Your task to perform on an android device: Open privacy settings Image 0: 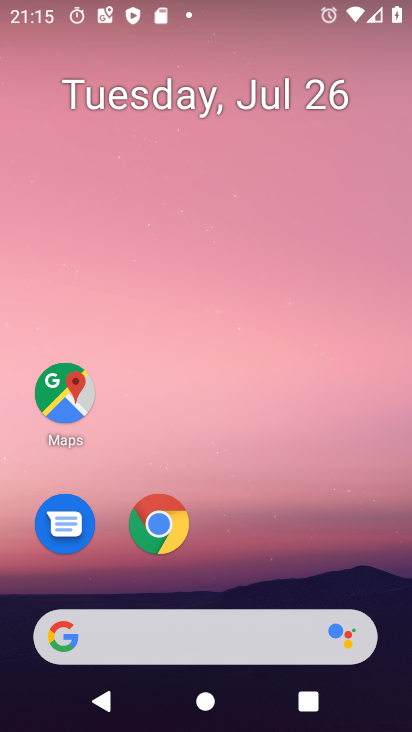
Step 0: drag from (272, 556) to (273, 153)
Your task to perform on an android device: Open privacy settings Image 1: 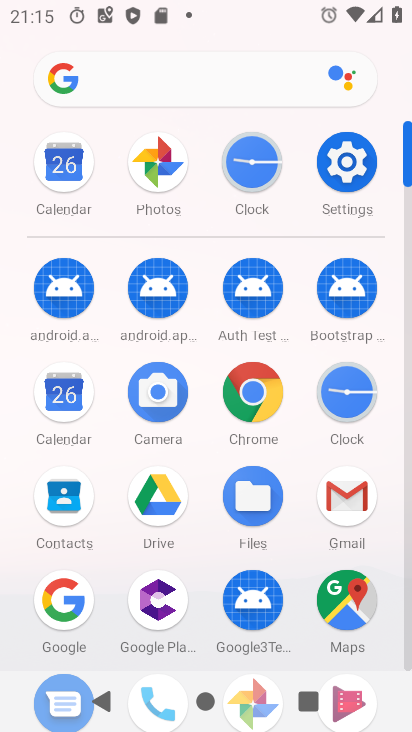
Step 1: click (357, 161)
Your task to perform on an android device: Open privacy settings Image 2: 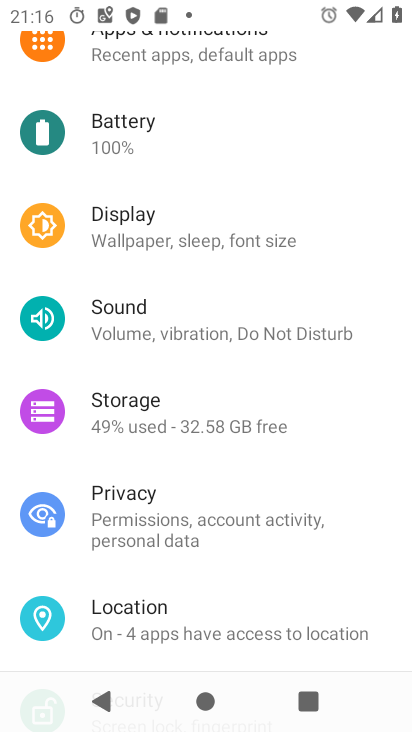
Step 2: click (217, 504)
Your task to perform on an android device: Open privacy settings Image 3: 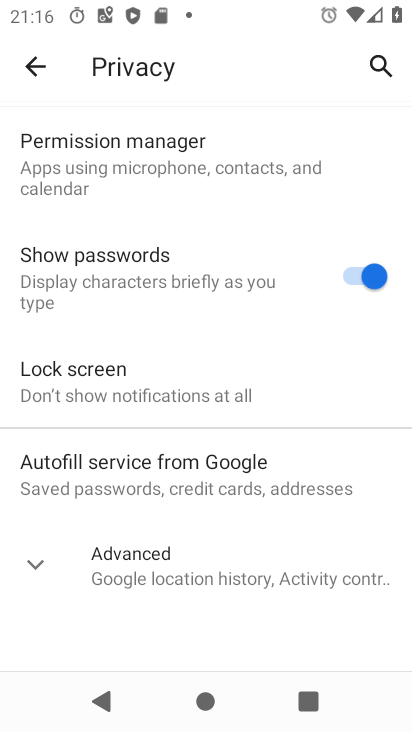
Step 3: task complete